Your task to perform on an android device: find snoozed emails in the gmail app Image 0: 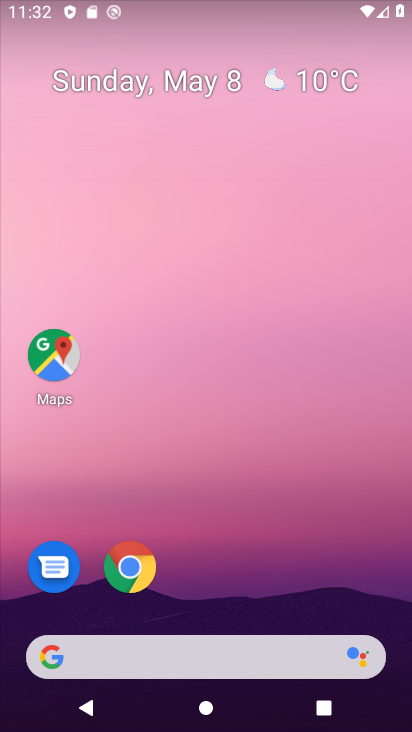
Step 0: drag from (198, 610) to (225, 181)
Your task to perform on an android device: find snoozed emails in the gmail app Image 1: 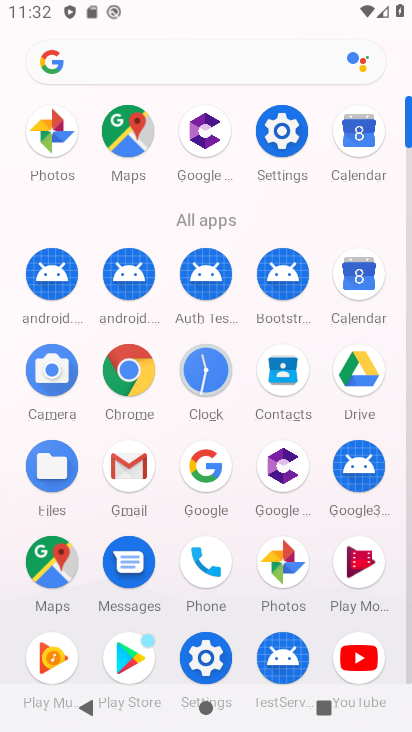
Step 1: click (132, 474)
Your task to perform on an android device: find snoozed emails in the gmail app Image 2: 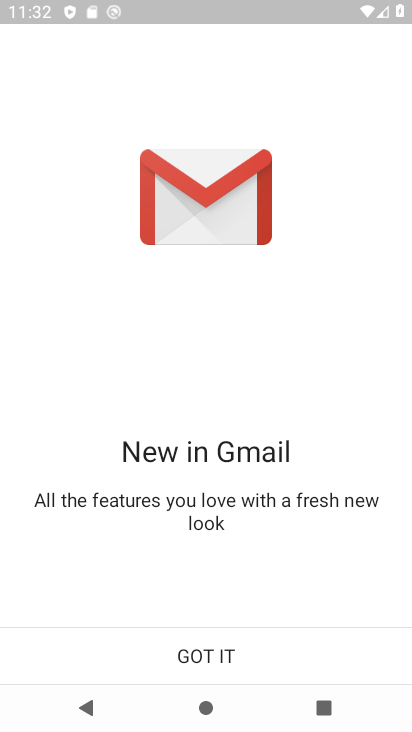
Step 2: click (185, 659)
Your task to perform on an android device: find snoozed emails in the gmail app Image 3: 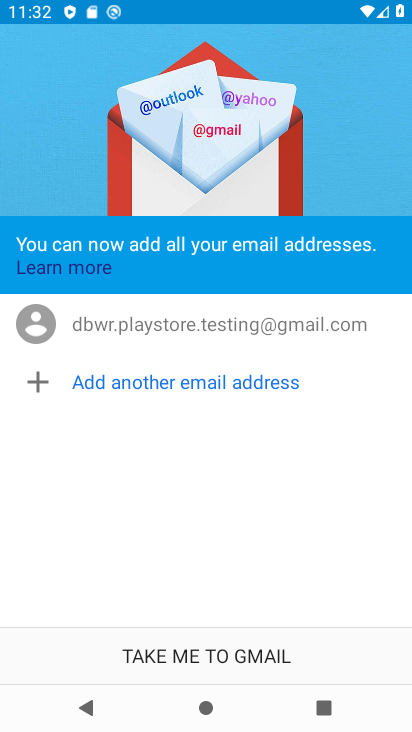
Step 3: click (185, 659)
Your task to perform on an android device: find snoozed emails in the gmail app Image 4: 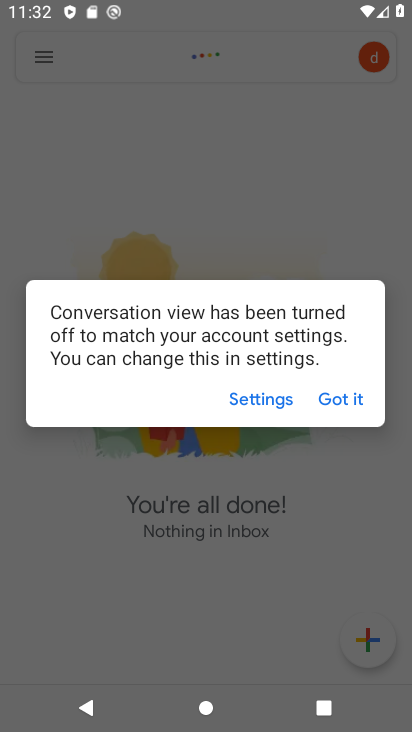
Step 4: click (339, 403)
Your task to perform on an android device: find snoozed emails in the gmail app Image 5: 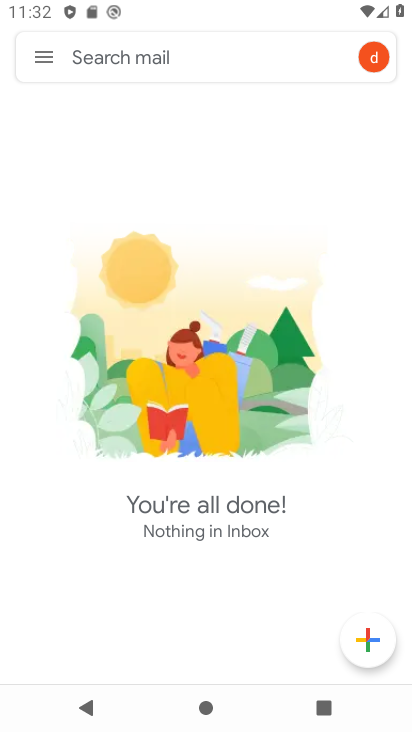
Step 5: click (47, 58)
Your task to perform on an android device: find snoozed emails in the gmail app Image 6: 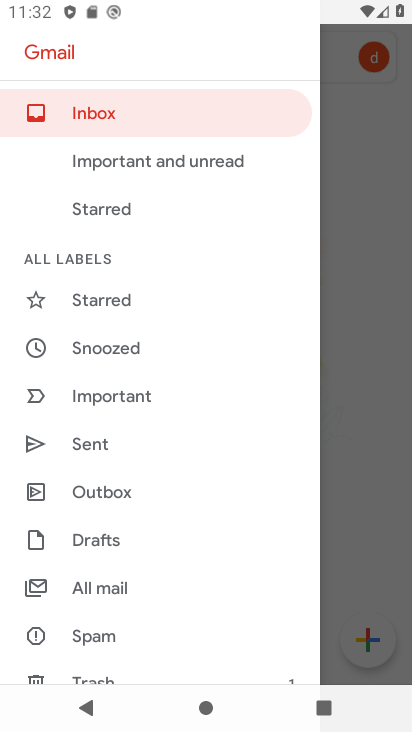
Step 6: click (128, 352)
Your task to perform on an android device: find snoozed emails in the gmail app Image 7: 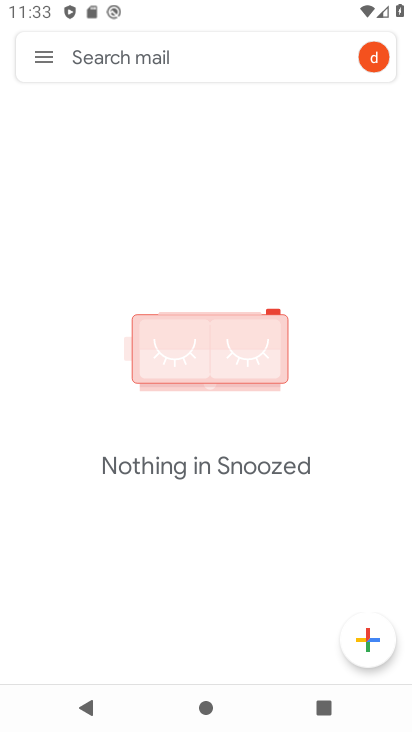
Step 7: task complete